Your task to perform on an android device: turn notification dots off Image 0: 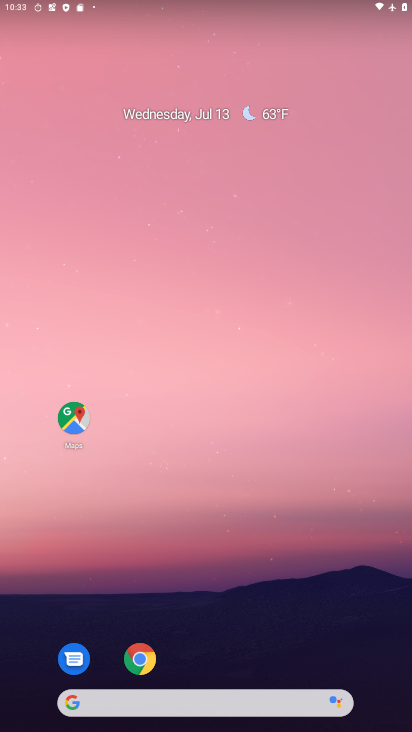
Step 0: drag from (337, 567) to (311, 179)
Your task to perform on an android device: turn notification dots off Image 1: 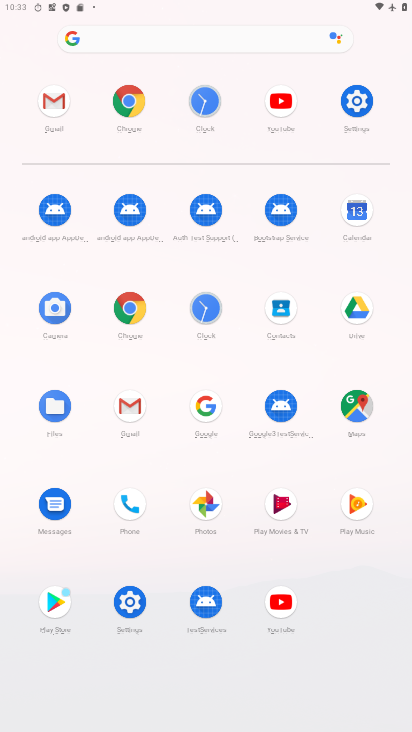
Step 1: click (352, 98)
Your task to perform on an android device: turn notification dots off Image 2: 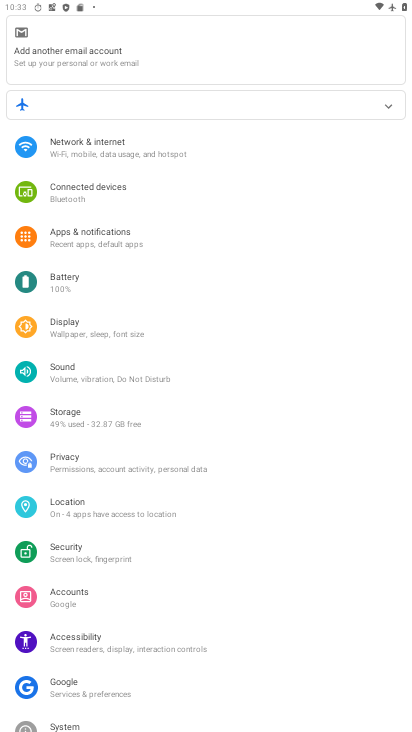
Step 2: click (109, 237)
Your task to perform on an android device: turn notification dots off Image 3: 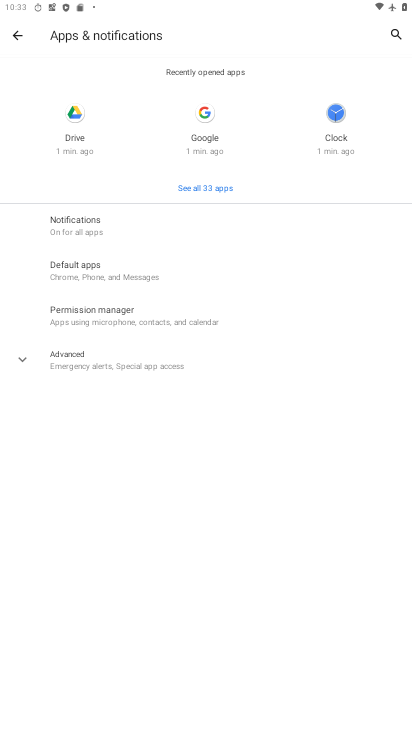
Step 3: click (86, 215)
Your task to perform on an android device: turn notification dots off Image 4: 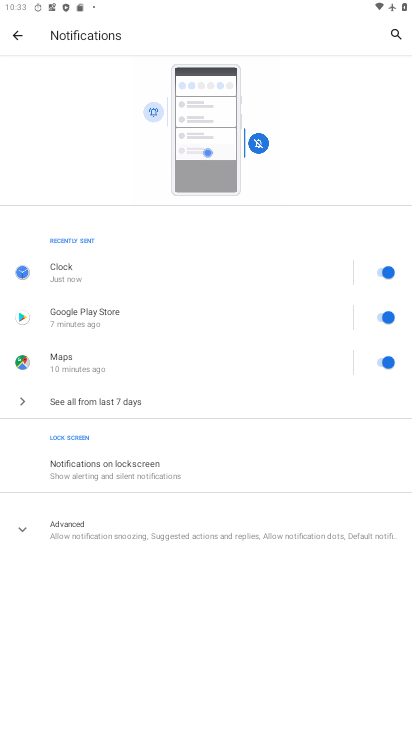
Step 4: click (139, 537)
Your task to perform on an android device: turn notification dots off Image 5: 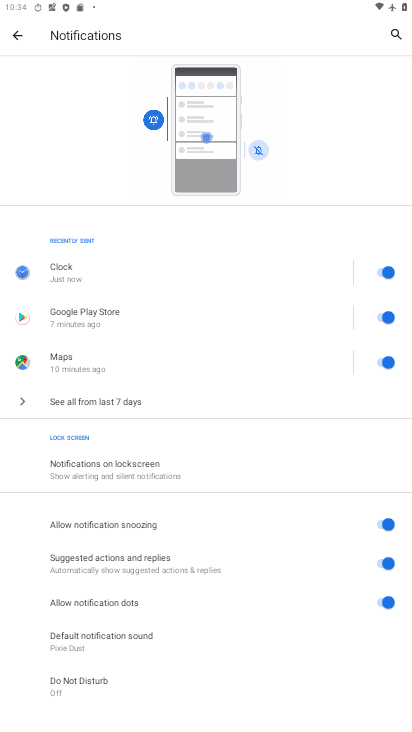
Step 5: click (380, 602)
Your task to perform on an android device: turn notification dots off Image 6: 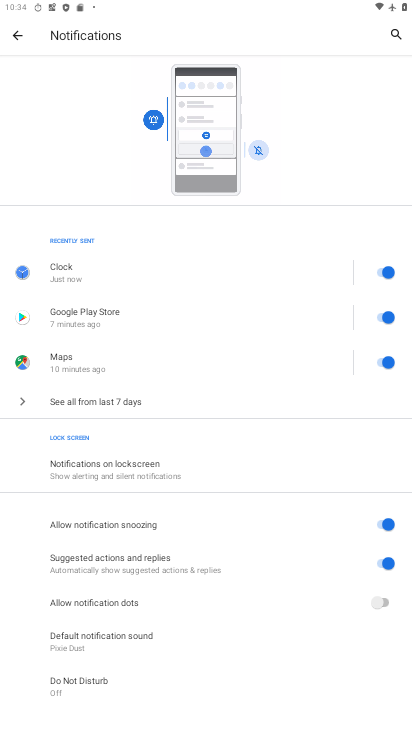
Step 6: task complete